Your task to perform on an android device: Go to Android settings Image 0: 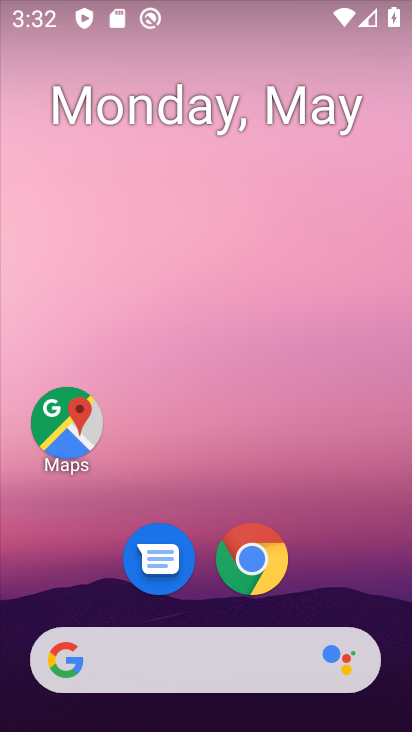
Step 0: drag from (303, 632) to (220, 0)
Your task to perform on an android device: Go to Android settings Image 1: 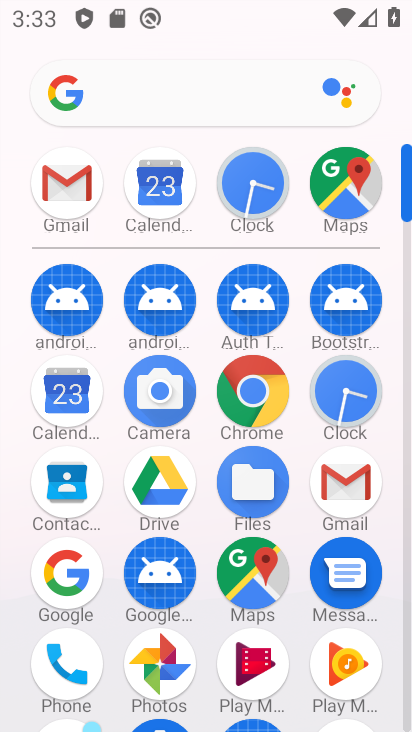
Step 1: drag from (220, 584) to (149, 213)
Your task to perform on an android device: Go to Android settings Image 2: 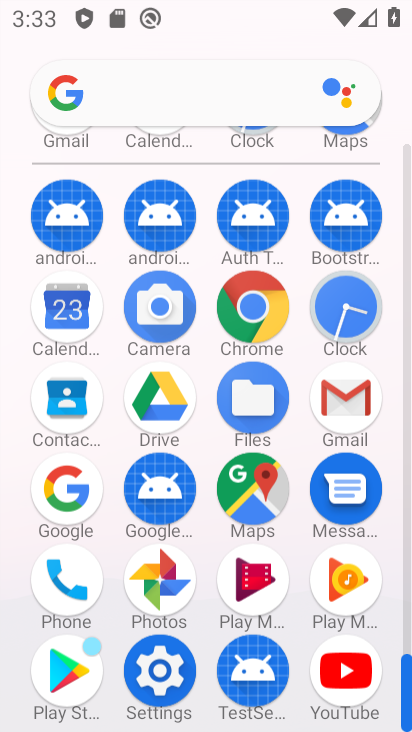
Step 2: drag from (195, 604) to (122, 211)
Your task to perform on an android device: Go to Android settings Image 3: 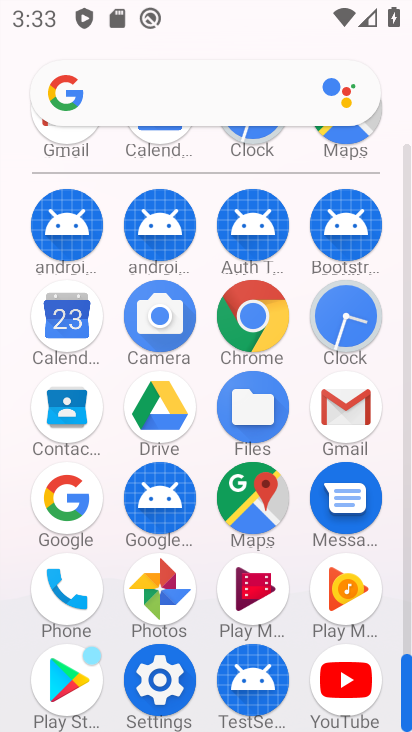
Step 3: drag from (174, 497) to (160, 235)
Your task to perform on an android device: Go to Android settings Image 4: 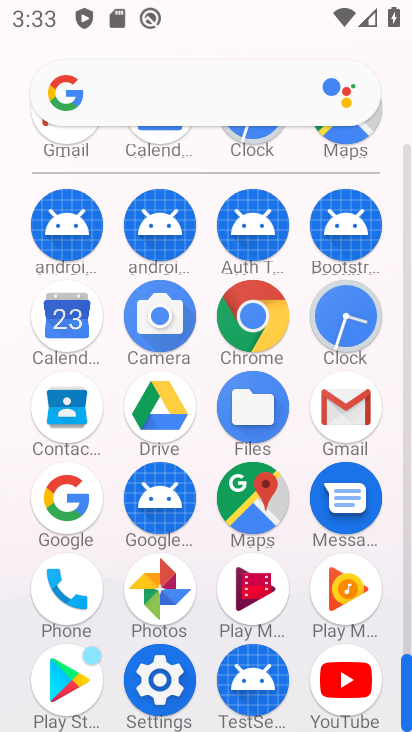
Step 4: drag from (266, 611) to (199, 173)
Your task to perform on an android device: Go to Android settings Image 5: 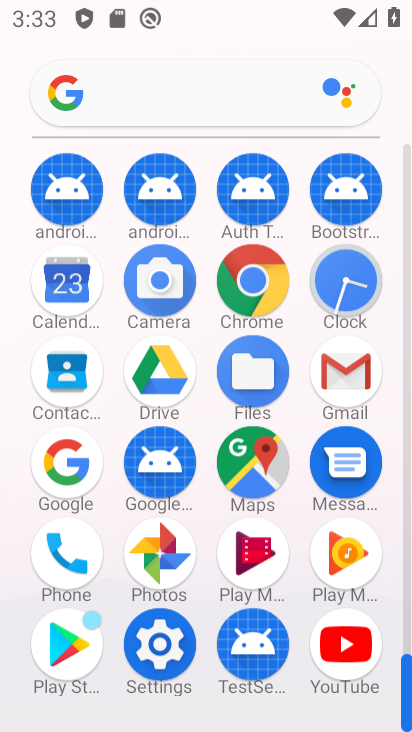
Step 5: drag from (217, 636) to (171, 245)
Your task to perform on an android device: Go to Android settings Image 6: 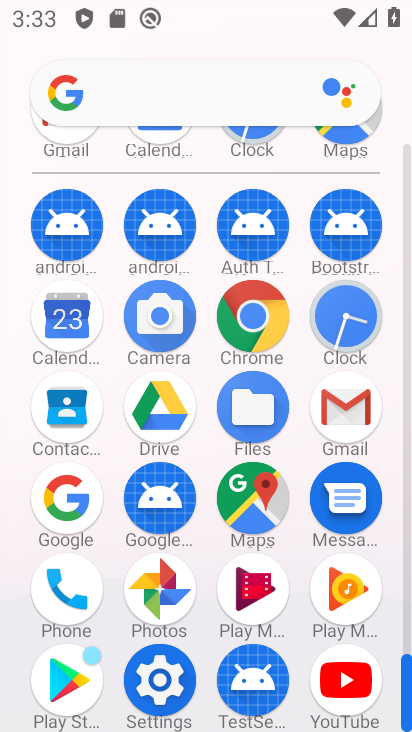
Step 6: click (147, 658)
Your task to perform on an android device: Go to Android settings Image 7: 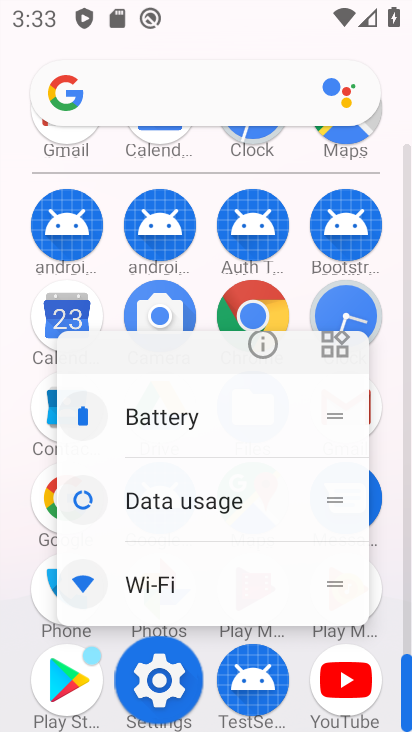
Step 7: click (151, 669)
Your task to perform on an android device: Go to Android settings Image 8: 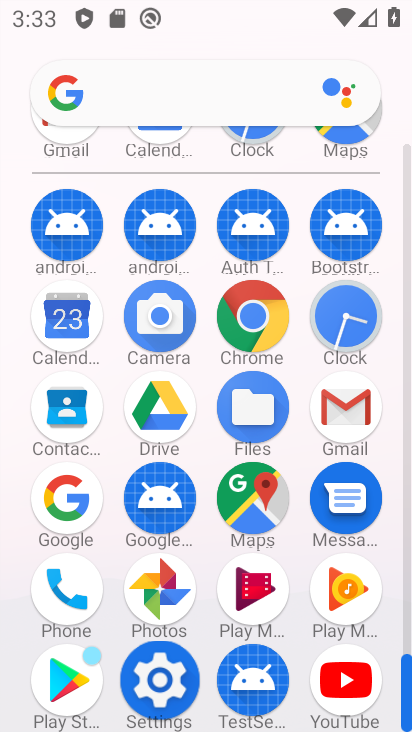
Step 8: click (151, 670)
Your task to perform on an android device: Go to Android settings Image 9: 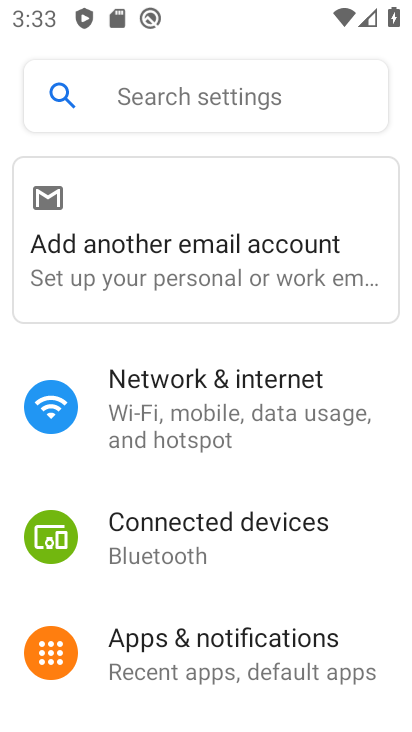
Step 9: drag from (203, 492) to (151, 136)
Your task to perform on an android device: Go to Android settings Image 10: 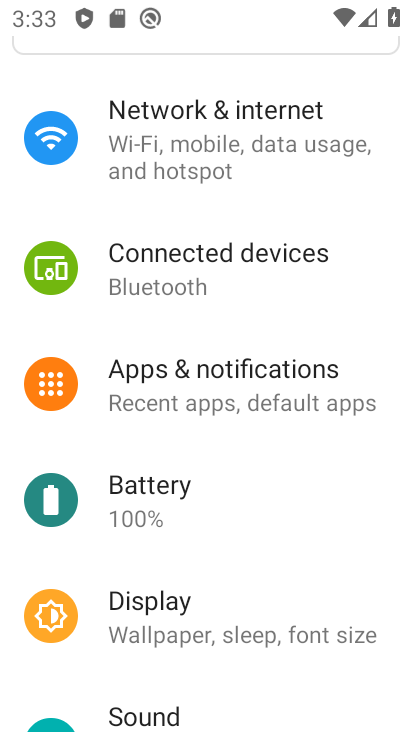
Step 10: drag from (194, 515) to (155, 108)
Your task to perform on an android device: Go to Android settings Image 11: 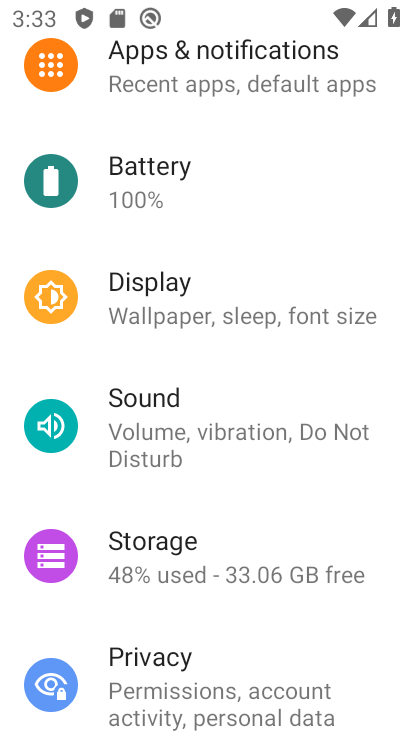
Step 11: drag from (205, 588) to (198, 77)
Your task to perform on an android device: Go to Android settings Image 12: 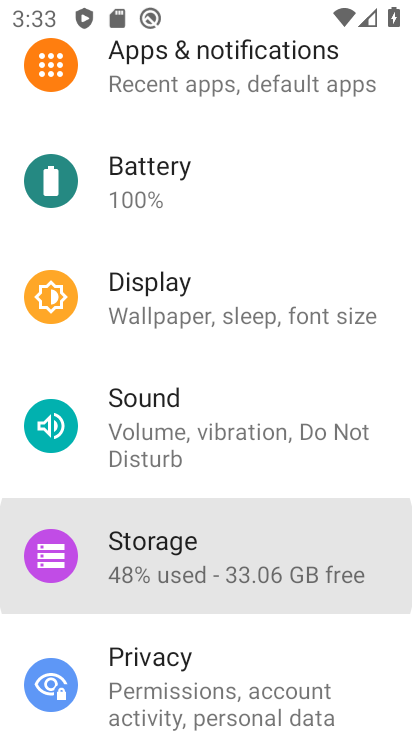
Step 12: drag from (228, 585) to (220, 48)
Your task to perform on an android device: Go to Android settings Image 13: 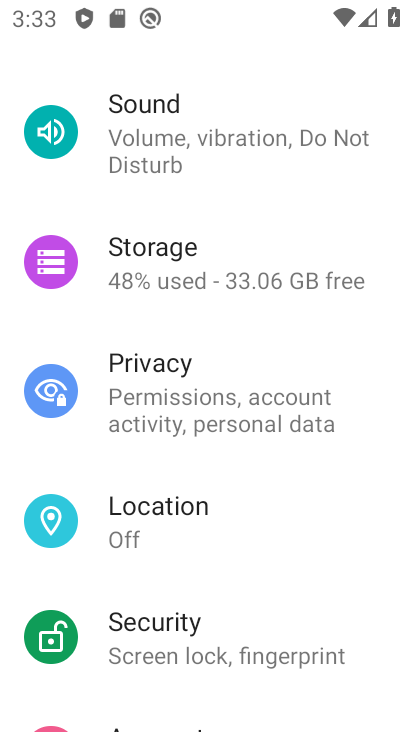
Step 13: drag from (196, 472) to (185, 63)
Your task to perform on an android device: Go to Android settings Image 14: 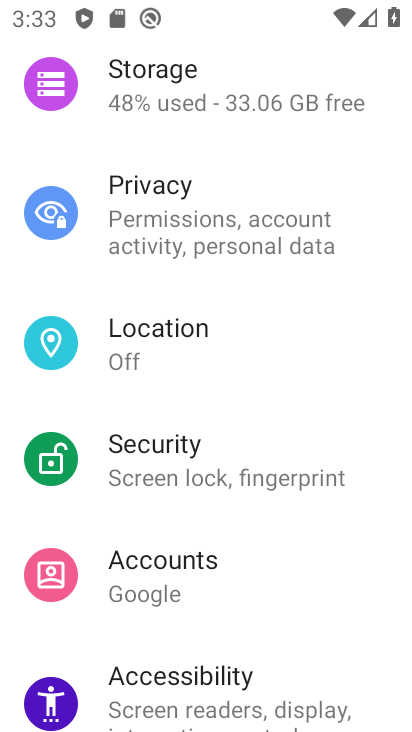
Step 14: drag from (204, 633) to (173, 127)
Your task to perform on an android device: Go to Android settings Image 15: 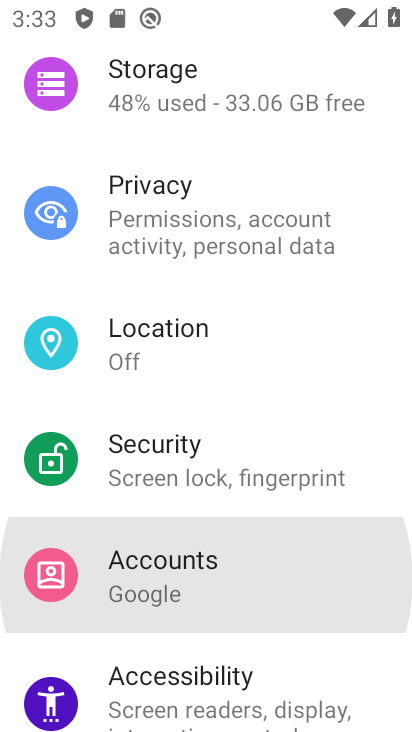
Step 15: drag from (184, 603) to (182, 99)
Your task to perform on an android device: Go to Android settings Image 16: 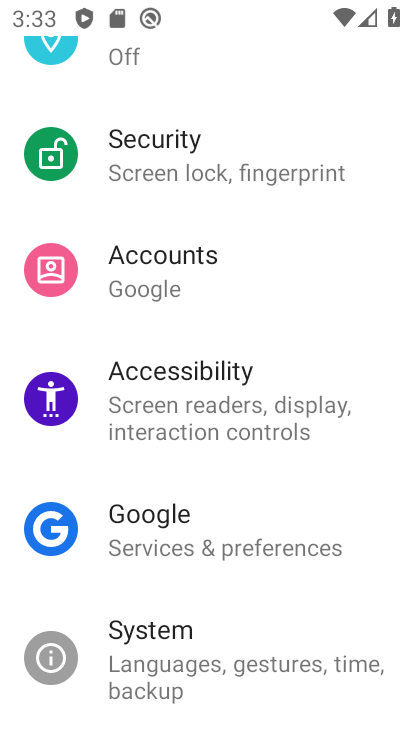
Step 16: drag from (158, 619) to (169, 225)
Your task to perform on an android device: Go to Android settings Image 17: 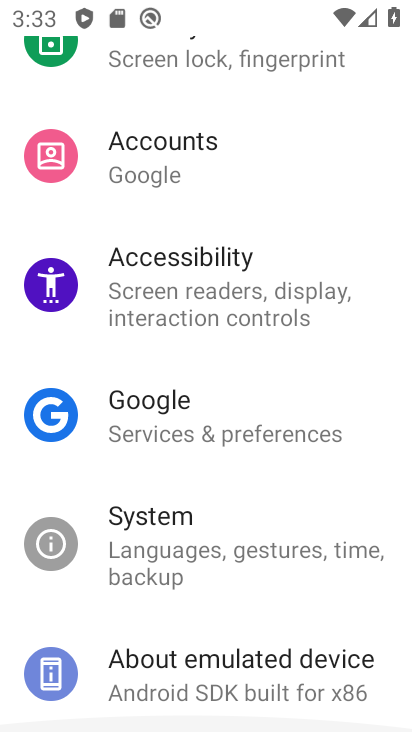
Step 17: drag from (200, 660) to (223, 177)
Your task to perform on an android device: Go to Android settings Image 18: 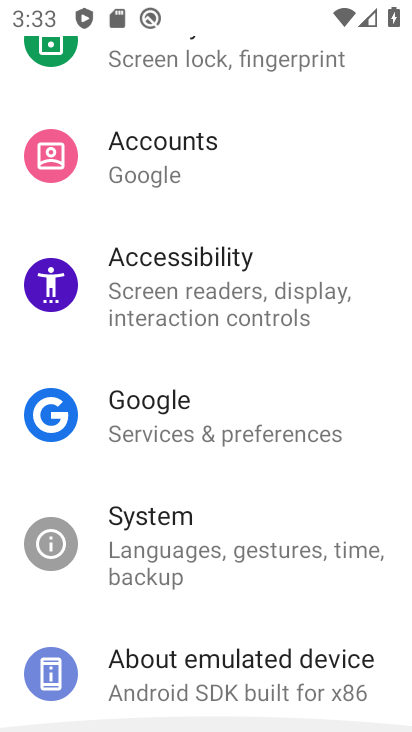
Step 18: drag from (195, 635) to (189, 163)
Your task to perform on an android device: Go to Android settings Image 19: 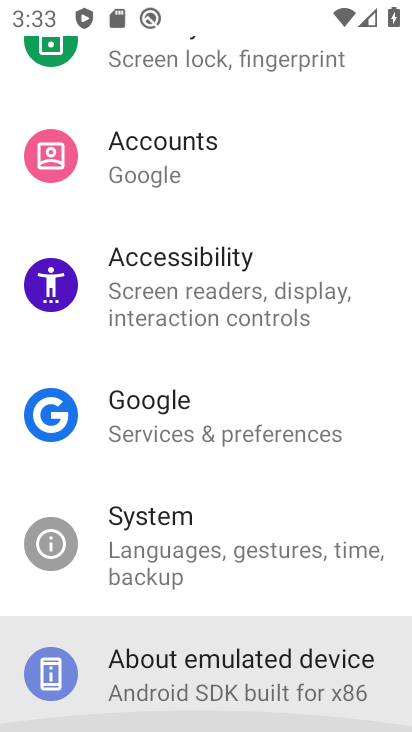
Step 19: drag from (202, 599) to (134, 77)
Your task to perform on an android device: Go to Android settings Image 20: 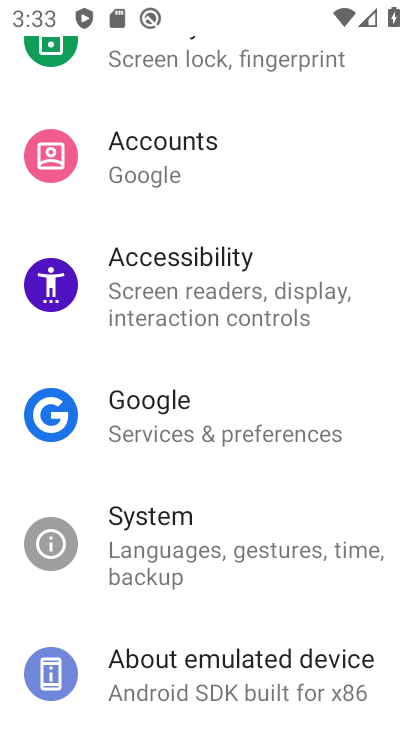
Step 20: click (175, 685)
Your task to perform on an android device: Go to Android settings Image 21: 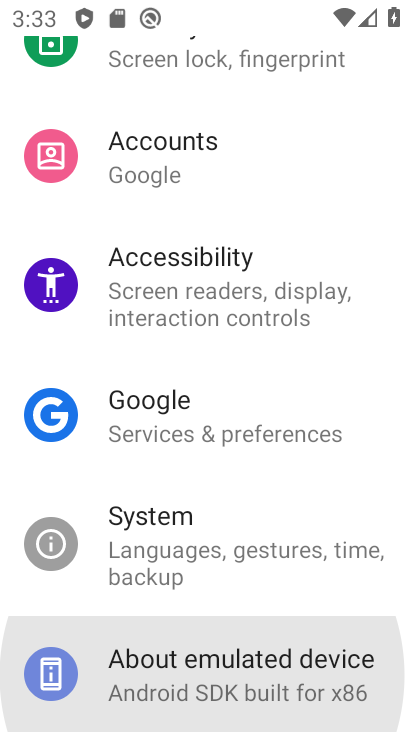
Step 21: click (175, 685)
Your task to perform on an android device: Go to Android settings Image 22: 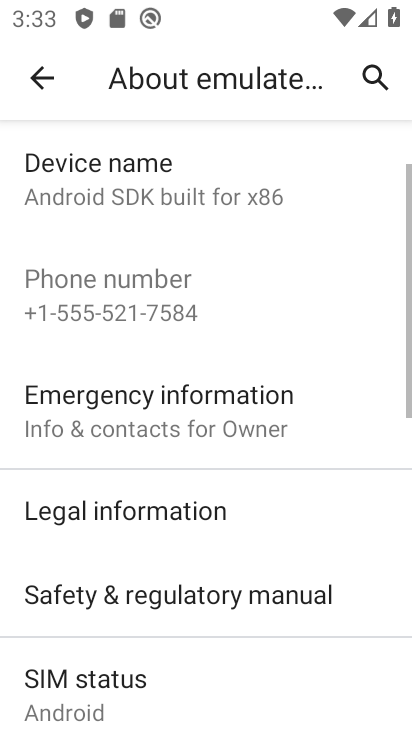
Step 22: task complete